Your task to perform on an android device: Open Amazon Image 0: 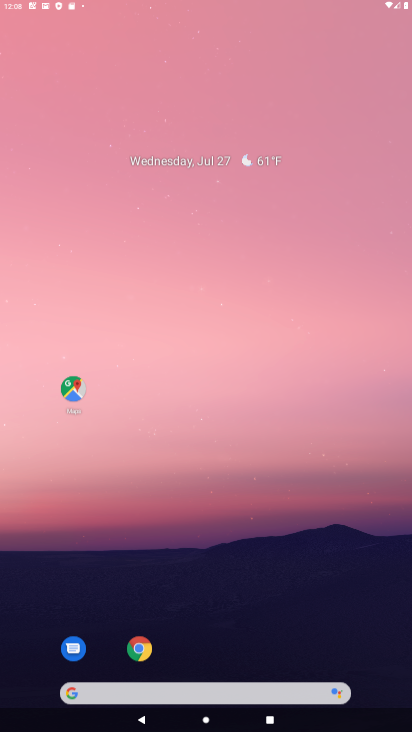
Step 0: press home button
Your task to perform on an android device: Open Amazon Image 1: 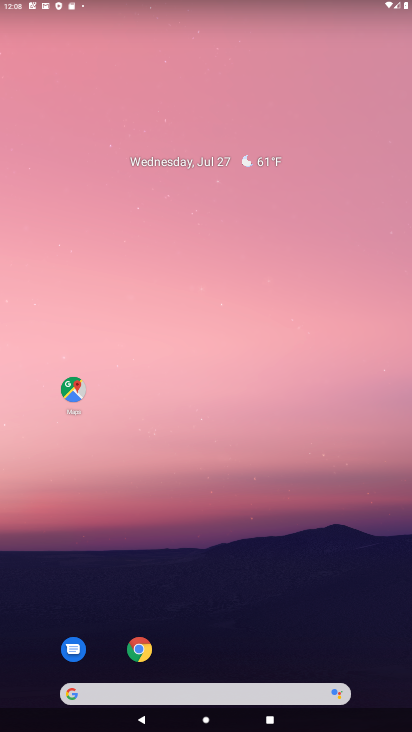
Step 1: click (164, 233)
Your task to perform on an android device: Open Amazon Image 2: 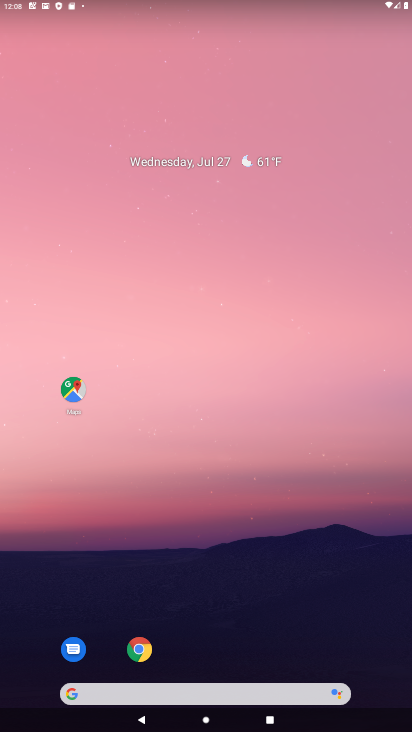
Step 2: drag from (230, 674) to (189, 365)
Your task to perform on an android device: Open Amazon Image 3: 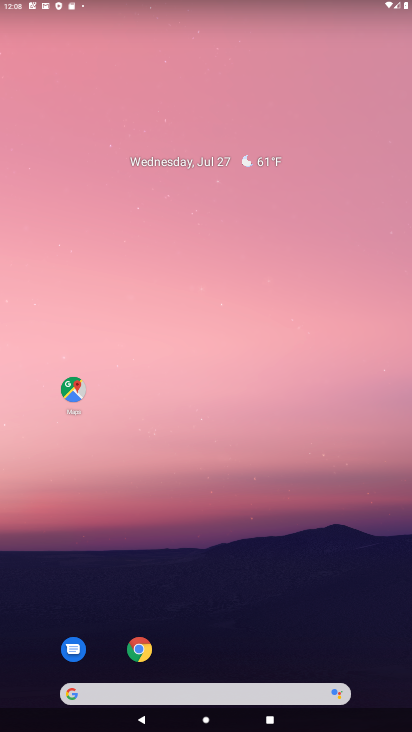
Step 3: drag from (191, 680) to (178, 375)
Your task to perform on an android device: Open Amazon Image 4: 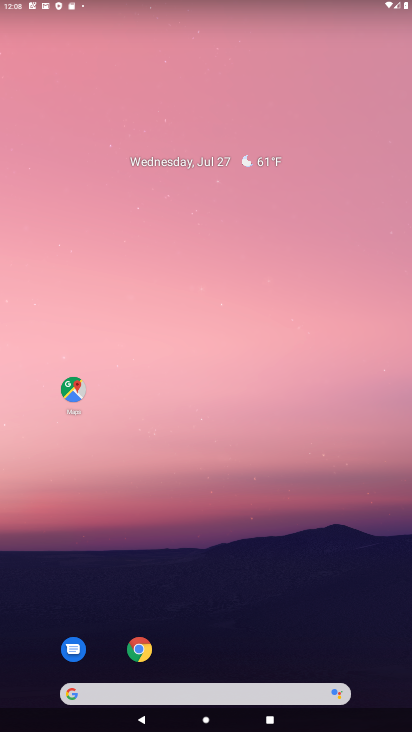
Step 4: drag from (166, 649) to (172, 280)
Your task to perform on an android device: Open Amazon Image 5: 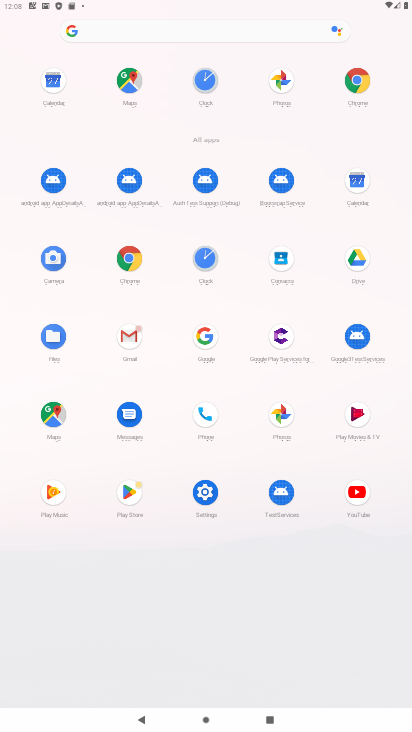
Step 5: click (133, 264)
Your task to perform on an android device: Open Amazon Image 6: 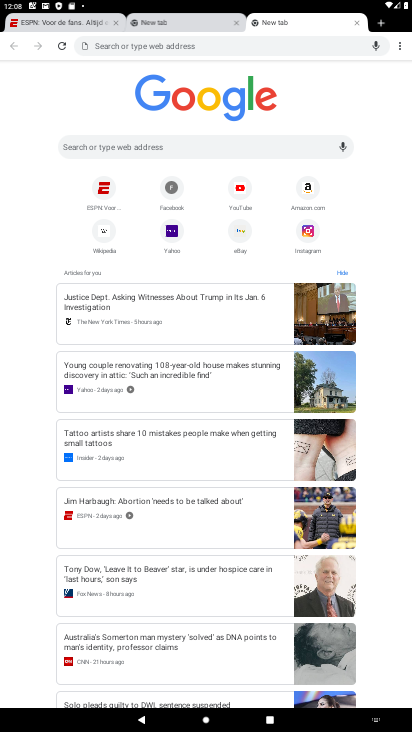
Step 6: click (305, 187)
Your task to perform on an android device: Open Amazon Image 7: 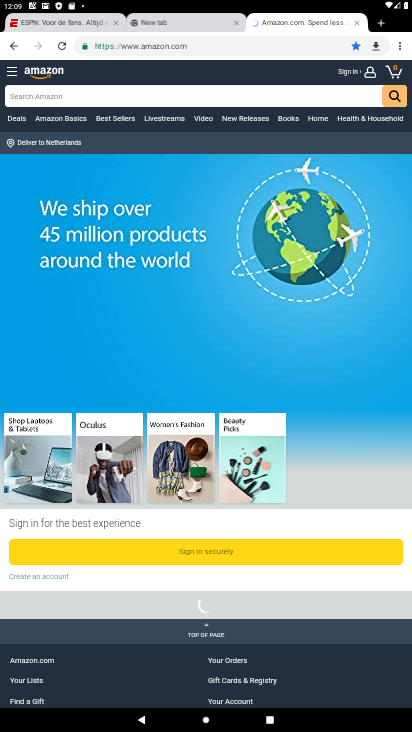
Step 7: task complete